Your task to perform on an android device: turn on wifi Image 0: 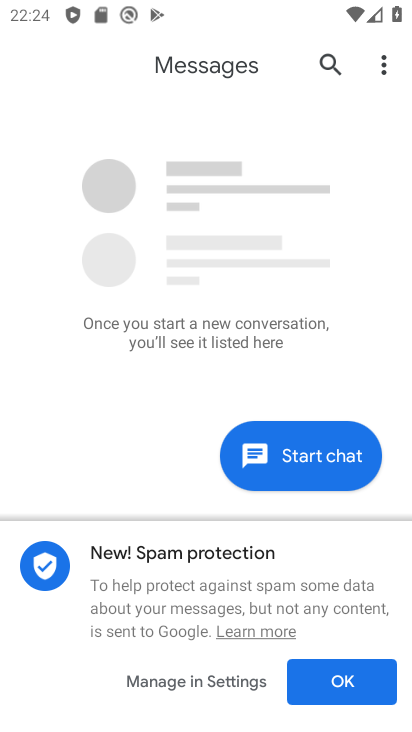
Step 0: press home button
Your task to perform on an android device: turn on wifi Image 1: 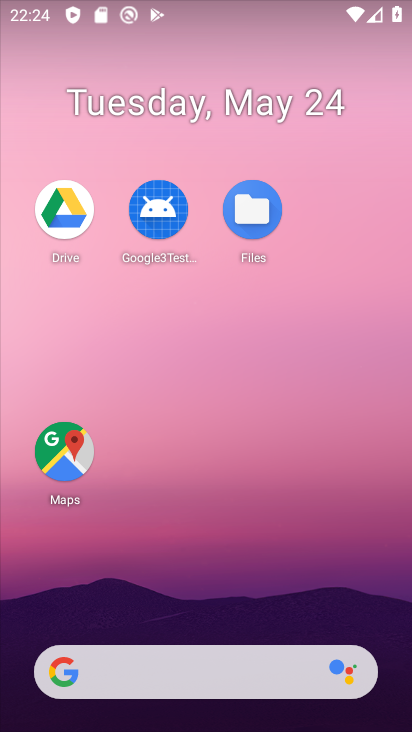
Step 1: drag from (183, 629) to (220, 0)
Your task to perform on an android device: turn on wifi Image 2: 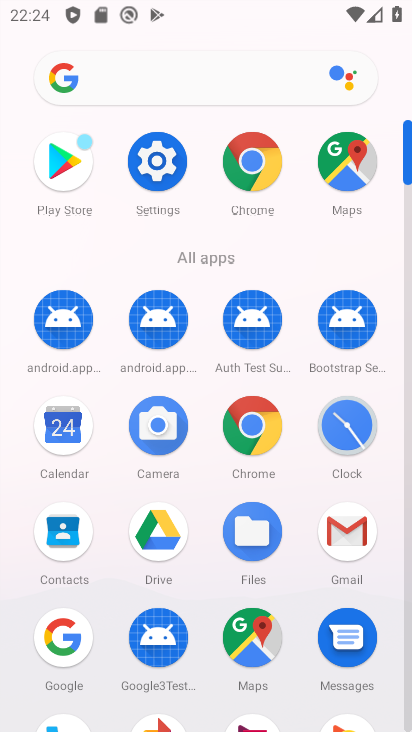
Step 2: click (163, 140)
Your task to perform on an android device: turn on wifi Image 3: 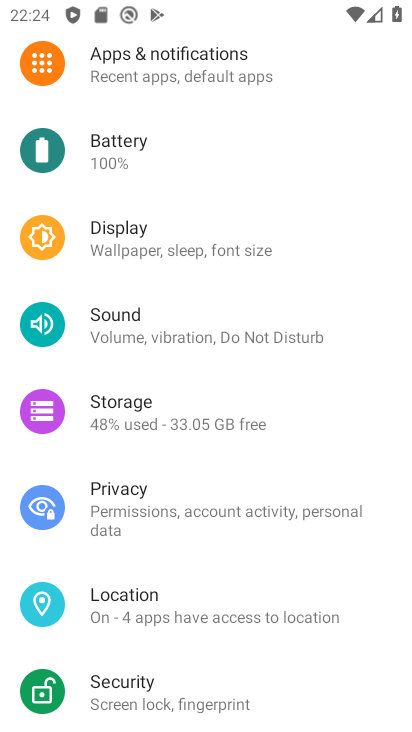
Step 3: drag from (163, 140) to (140, 528)
Your task to perform on an android device: turn on wifi Image 4: 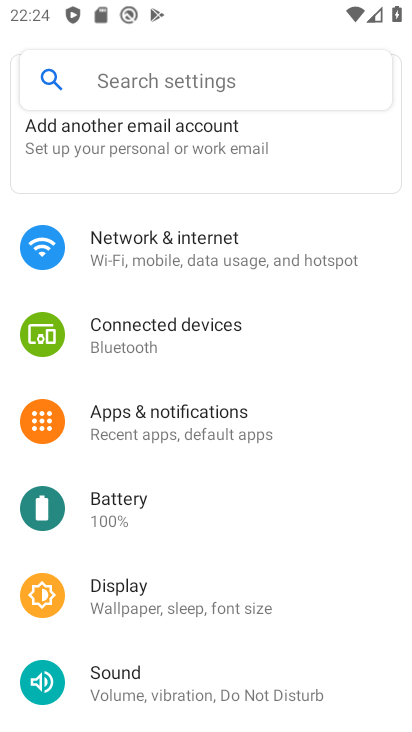
Step 4: click (141, 253)
Your task to perform on an android device: turn on wifi Image 5: 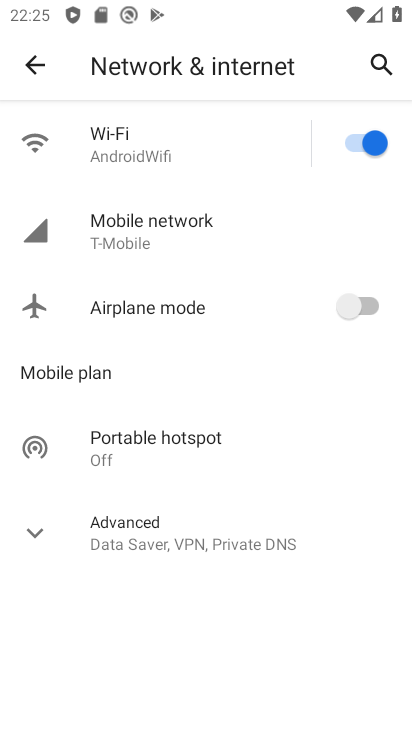
Step 5: task complete